Your task to perform on an android device: Open my contact list Image 0: 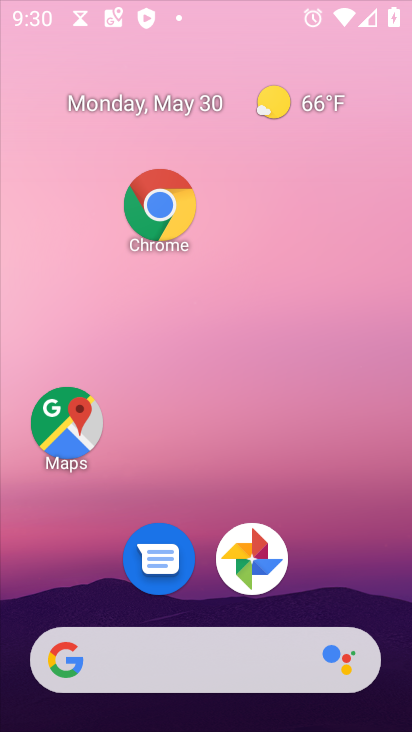
Step 0: click (230, 134)
Your task to perform on an android device: Open my contact list Image 1: 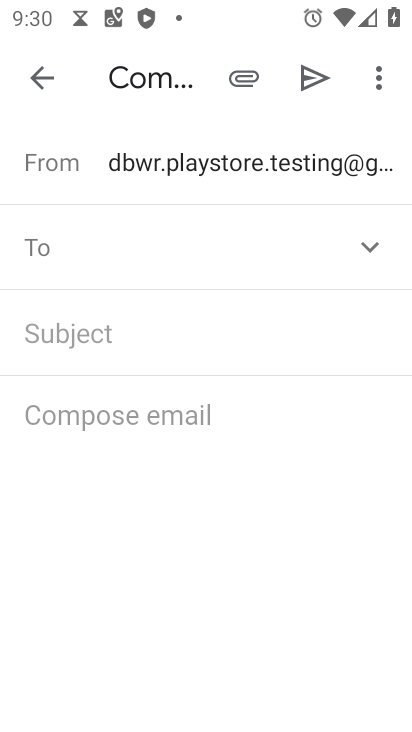
Step 1: click (37, 74)
Your task to perform on an android device: Open my contact list Image 2: 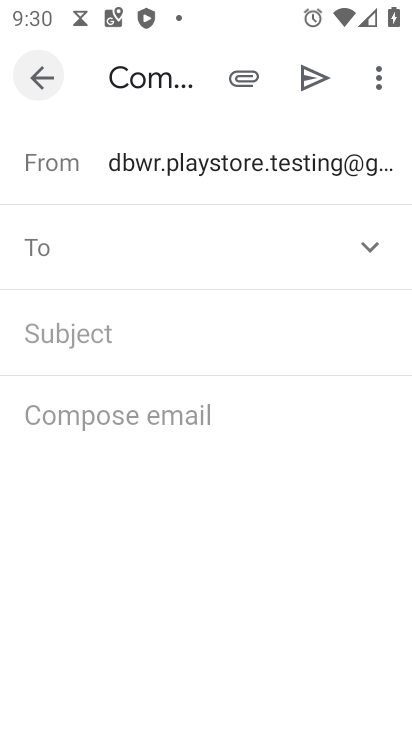
Step 2: click (37, 74)
Your task to perform on an android device: Open my contact list Image 3: 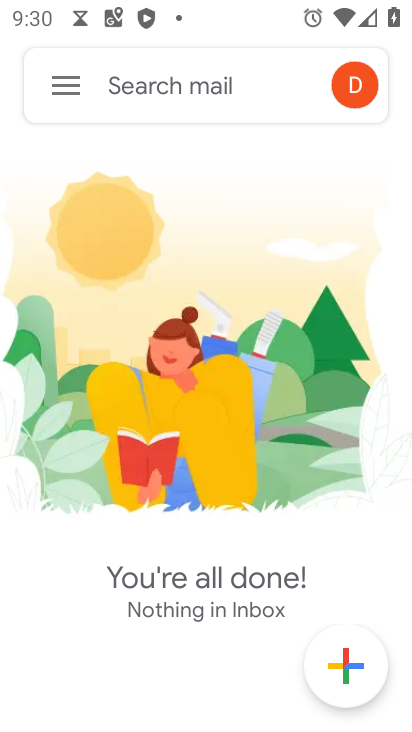
Step 3: press back button
Your task to perform on an android device: Open my contact list Image 4: 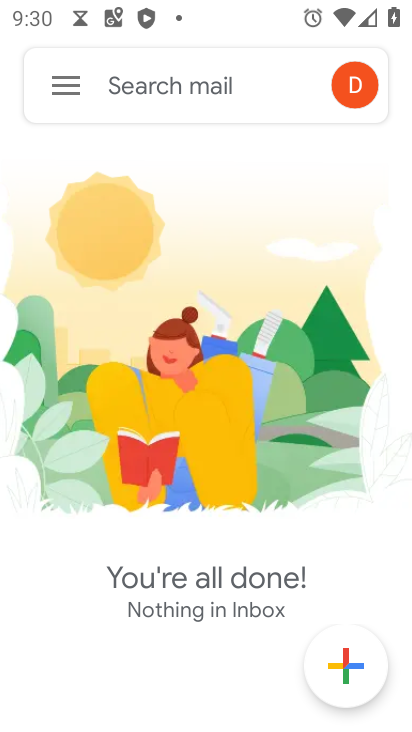
Step 4: press back button
Your task to perform on an android device: Open my contact list Image 5: 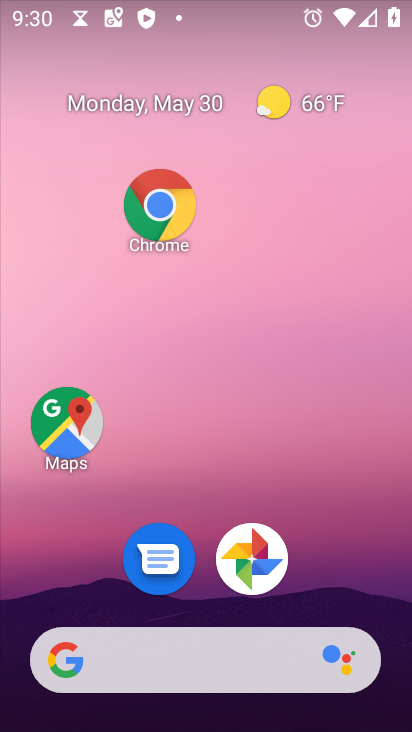
Step 5: drag from (261, 708) to (195, 225)
Your task to perform on an android device: Open my contact list Image 6: 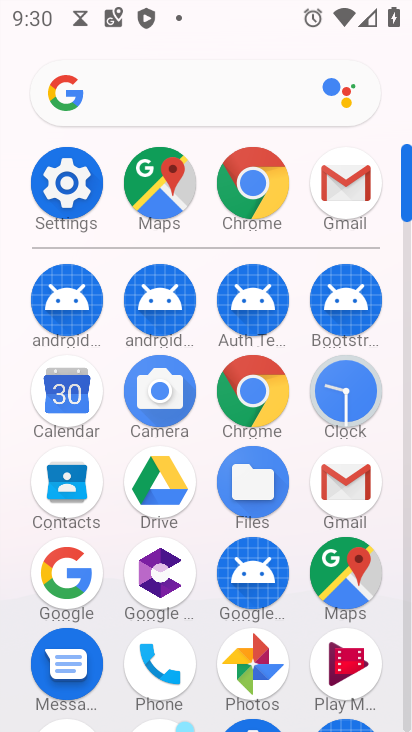
Step 6: click (60, 494)
Your task to perform on an android device: Open my contact list Image 7: 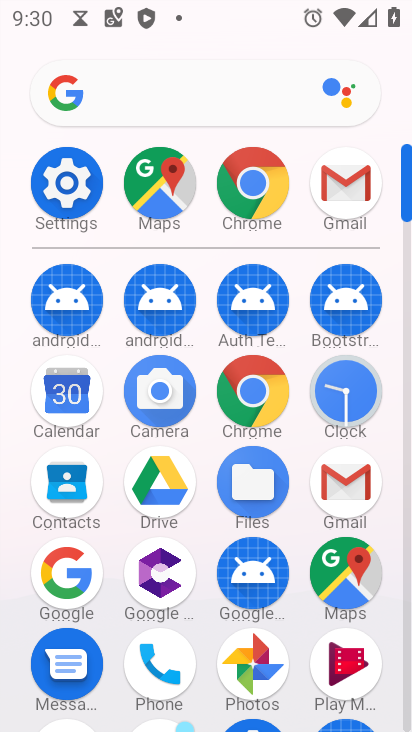
Step 7: click (62, 491)
Your task to perform on an android device: Open my contact list Image 8: 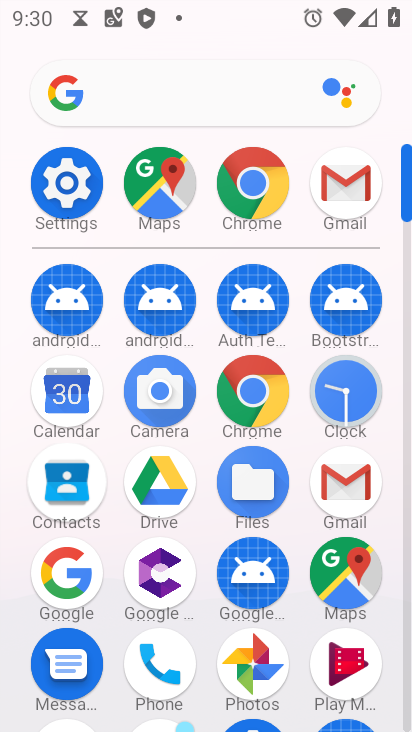
Step 8: click (62, 491)
Your task to perform on an android device: Open my contact list Image 9: 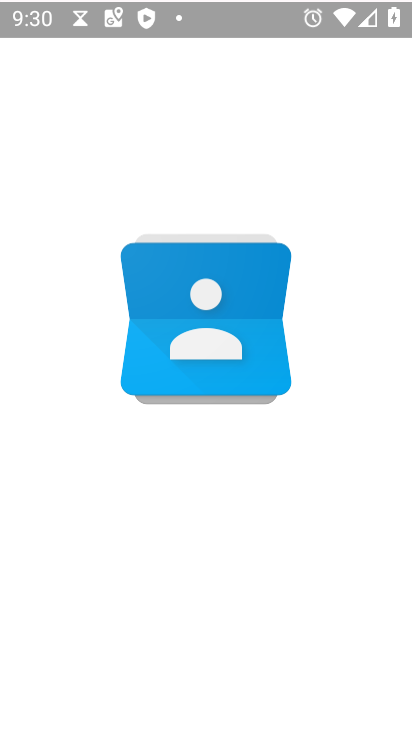
Step 9: click (62, 491)
Your task to perform on an android device: Open my contact list Image 10: 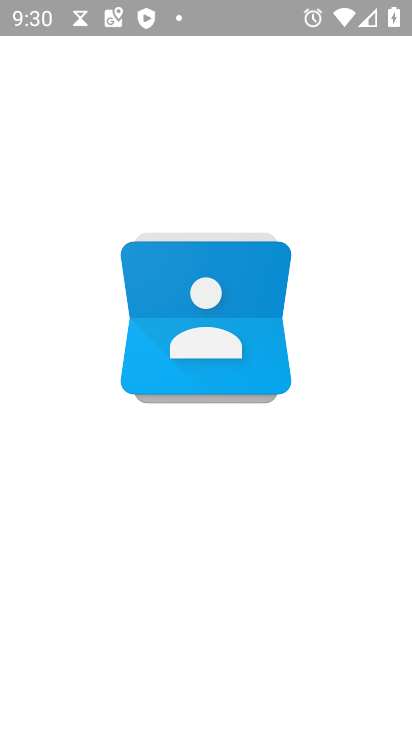
Step 10: click (66, 491)
Your task to perform on an android device: Open my contact list Image 11: 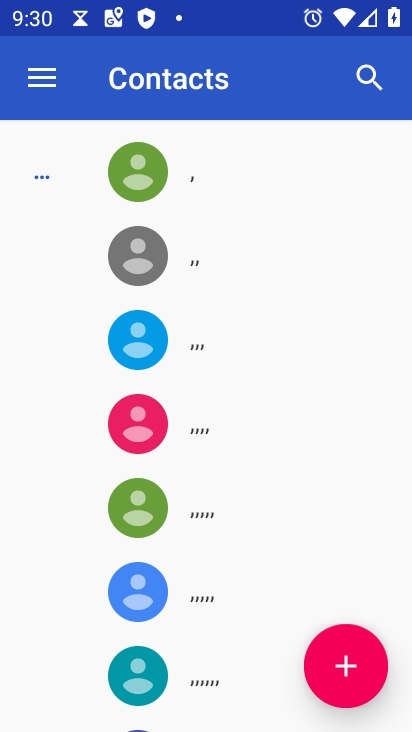
Step 11: task complete